Your task to perform on an android device: Is it going to rain this weekend? Image 0: 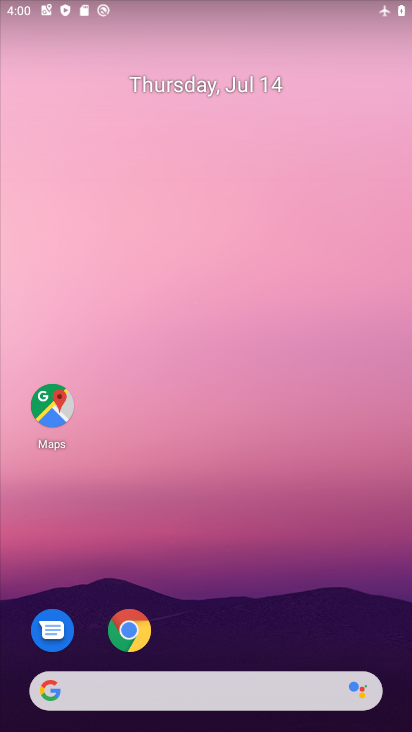
Step 0: drag from (288, 668) to (248, 1)
Your task to perform on an android device: Is it going to rain this weekend? Image 1: 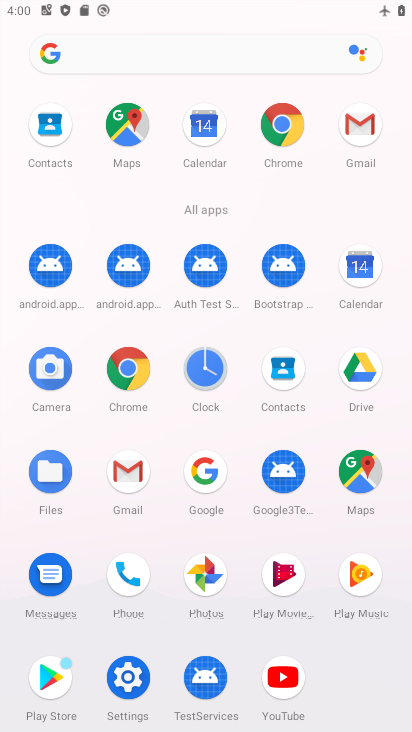
Step 1: click (125, 380)
Your task to perform on an android device: Is it going to rain this weekend? Image 2: 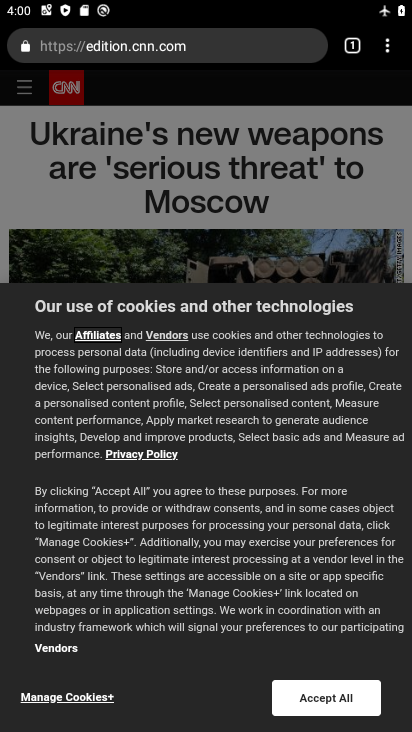
Step 2: click (188, 51)
Your task to perform on an android device: Is it going to rain this weekend? Image 3: 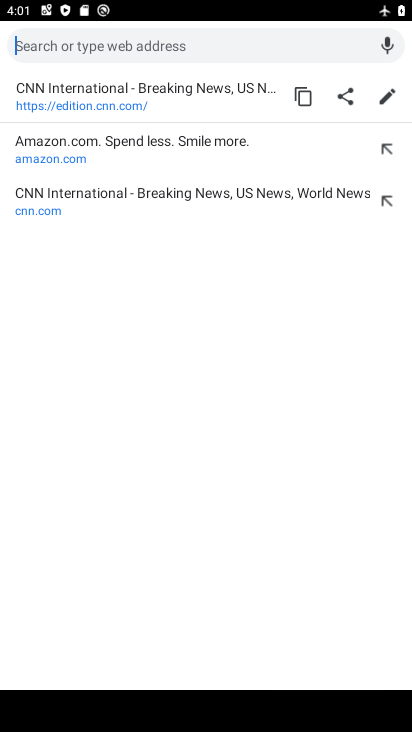
Step 3: type "going to rain this weekend"
Your task to perform on an android device: Is it going to rain this weekend? Image 4: 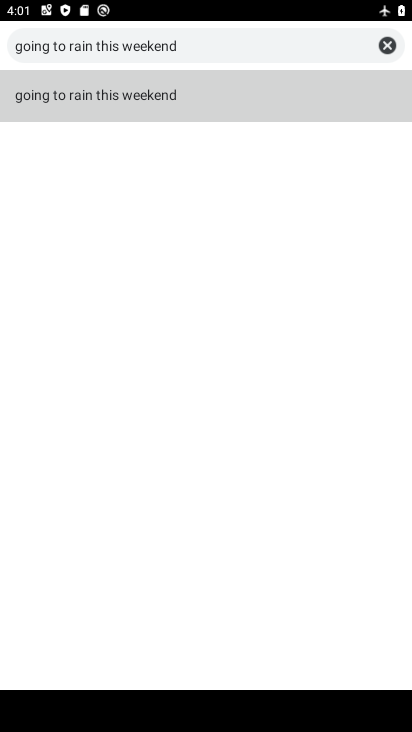
Step 4: click (386, 84)
Your task to perform on an android device: Is it going to rain this weekend? Image 5: 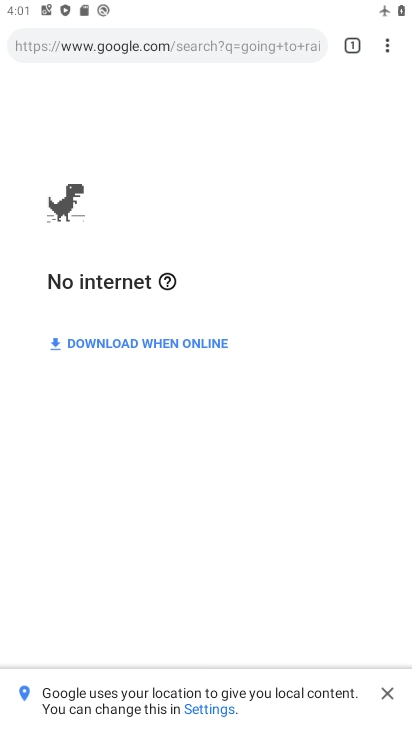
Step 5: task complete